Your task to perform on an android device: see creations saved in the google photos Image 0: 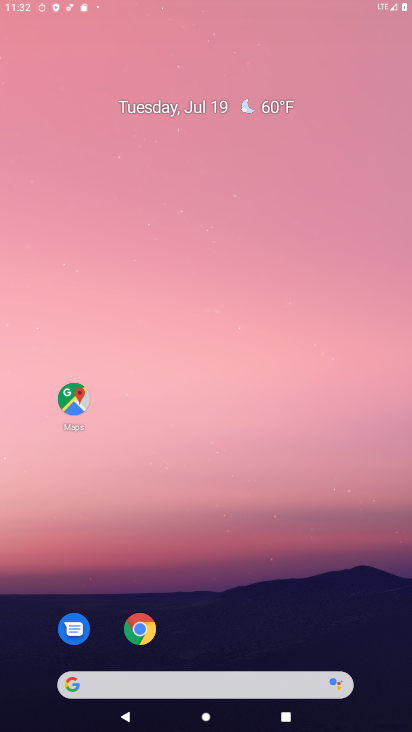
Step 0: drag from (308, 586) to (315, 95)
Your task to perform on an android device: see creations saved in the google photos Image 1: 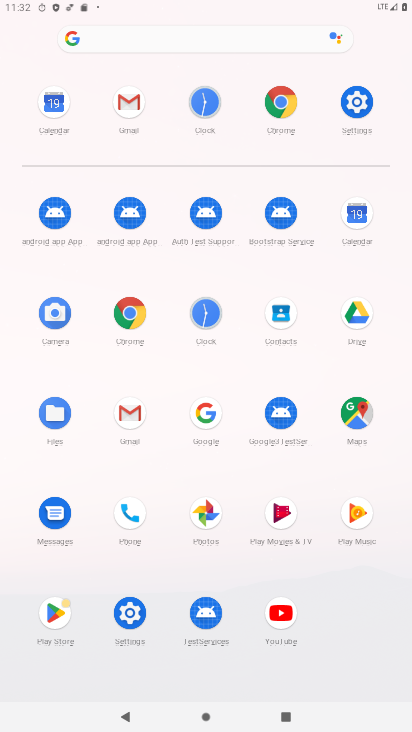
Step 1: click (212, 517)
Your task to perform on an android device: see creations saved in the google photos Image 2: 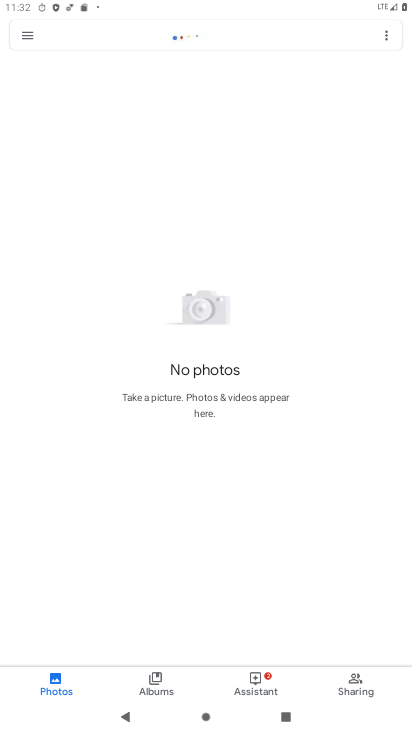
Step 2: click (163, 675)
Your task to perform on an android device: see creations saved in the google photos Image 3: 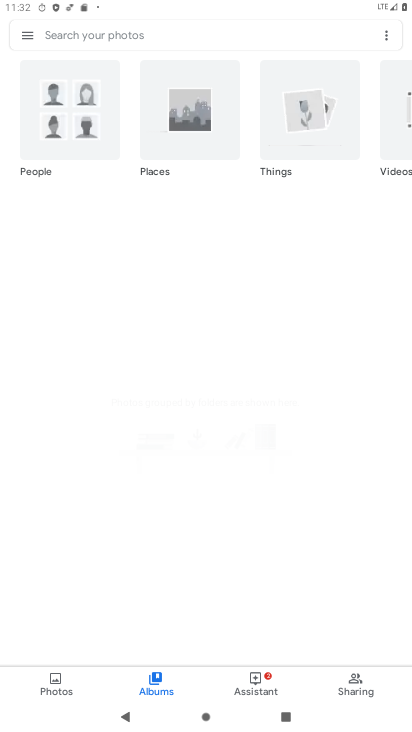
Step 3: click (245, 678)
Your task to perform on an android device: see creations saved in the google photos Image 4: 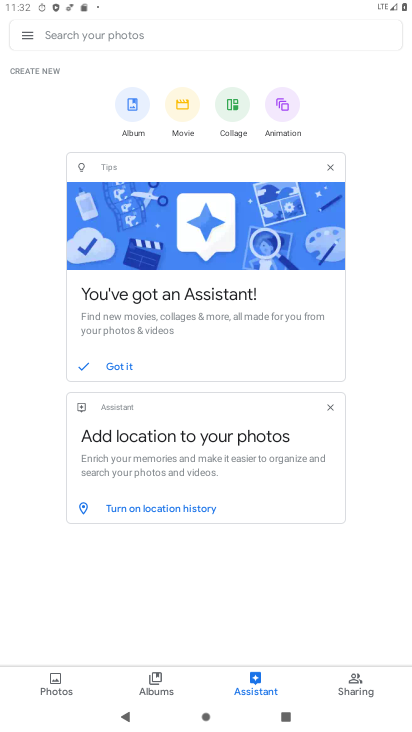
Step 4: click (346, 676)
Your task to perform on an android device: see creations saved in the google photos Image 5: 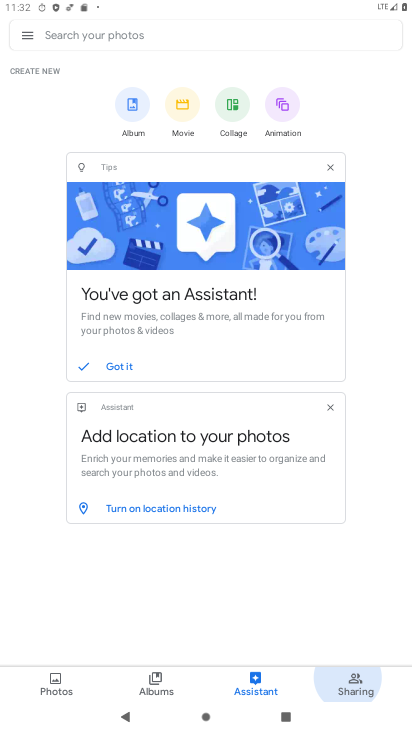
Step 5: click (346, 676)
Your task to perform on an android device: see creations saved in the google photos Image 6: 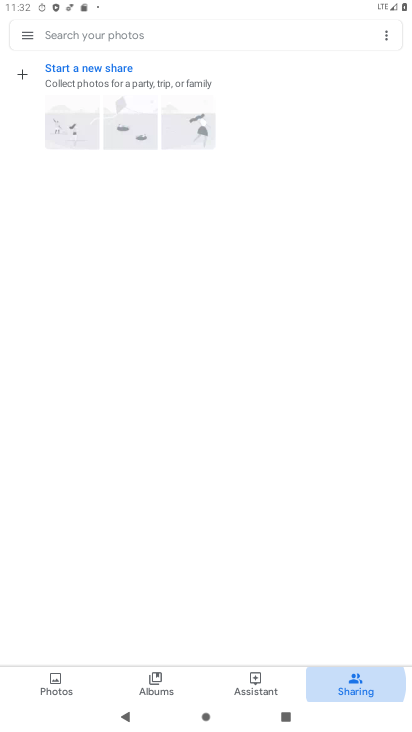
Step 6: click (346, 676)
Your task to perform on an android device: see creations saved in the google photos Image 7: 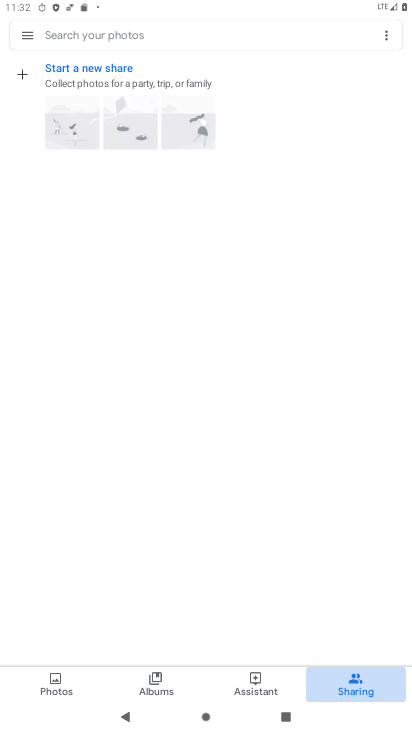
Step 7: click (346, 676)
Your task to perform on an android device: see creations saved in the google photos Image 8: 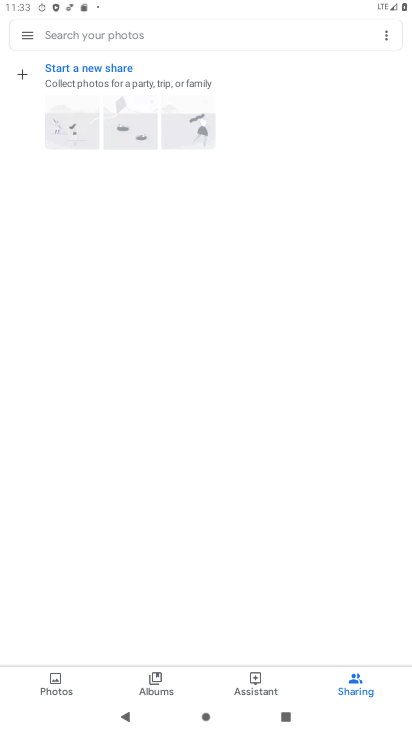
Step 8: task complete